Your task to perform on an android device: Clear the cart on amazon.com. Image 0: 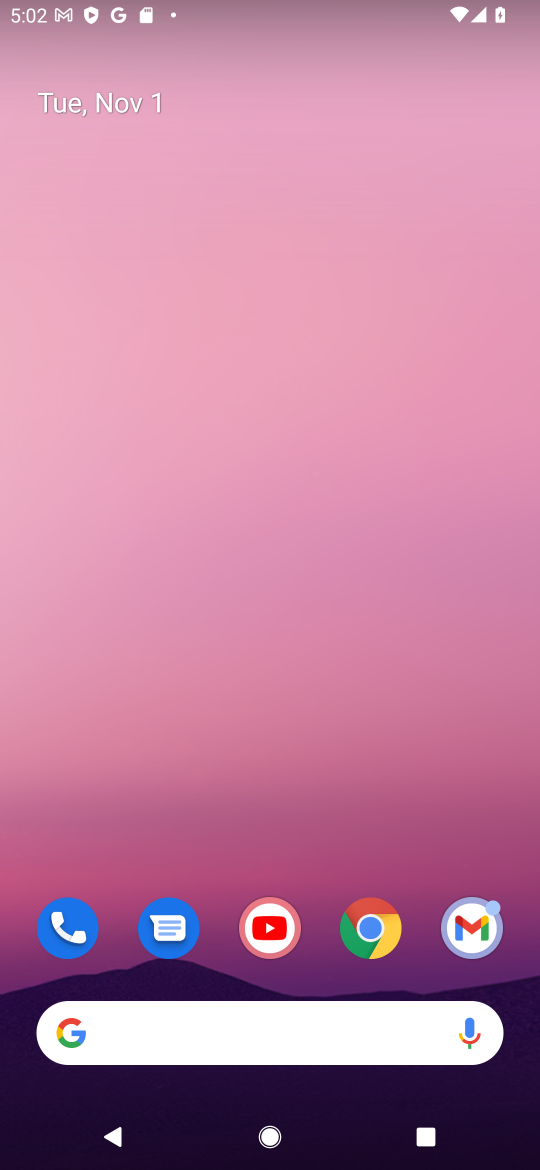
Step 0: click (367, 944)
Your task to perform on an android device: Clear the cart on amazon.com. Image 1: 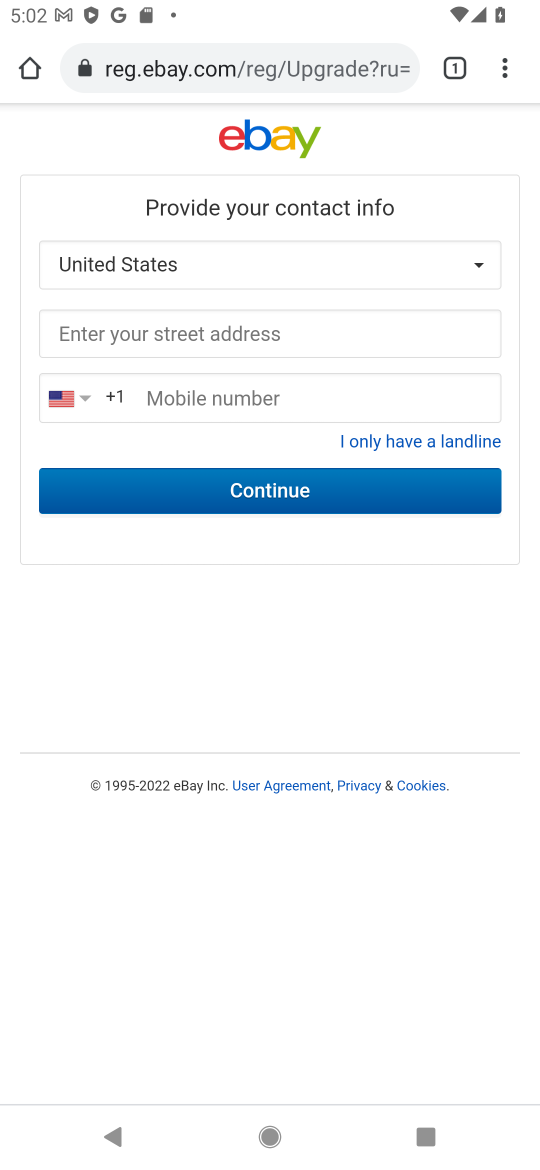
Step 1: click (286, 72)
Your task to perform on an android device: Clear the cart on amazon.com. Image 2: 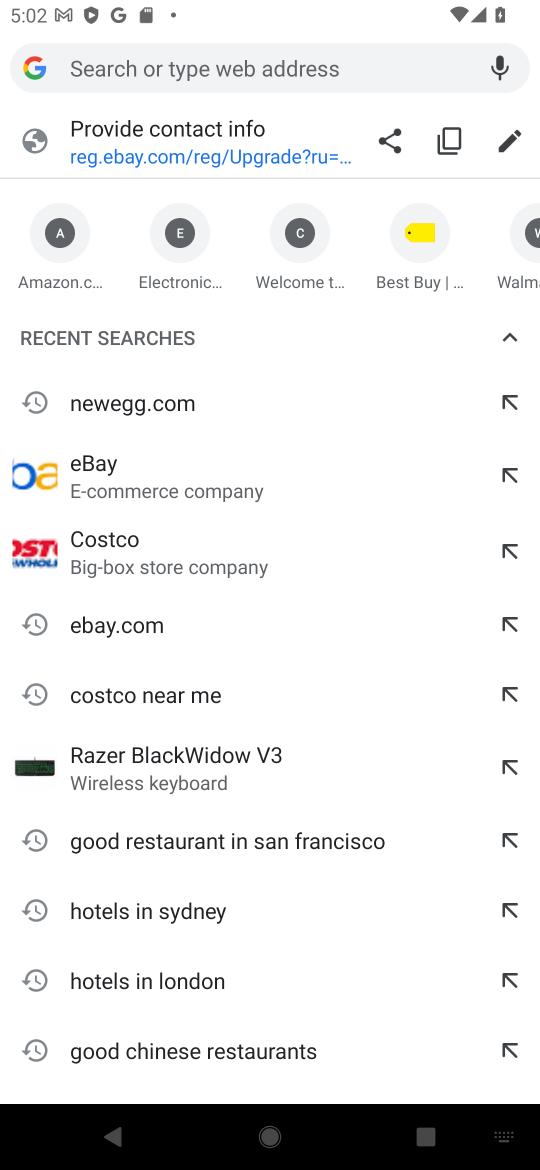
Step 2: type "amazon.com"
Your task to perform on an android device: Clear the cart on amazon.com. Image 3: 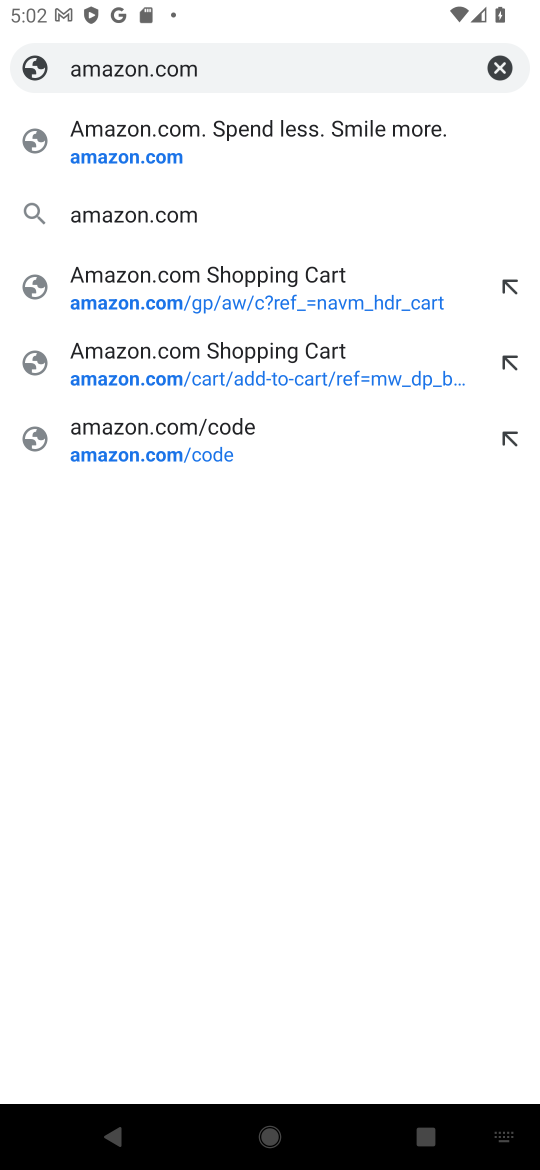
Step 3: press enter
Your task to perform on an android device: Clear the cart on amazon.com. Image 4: 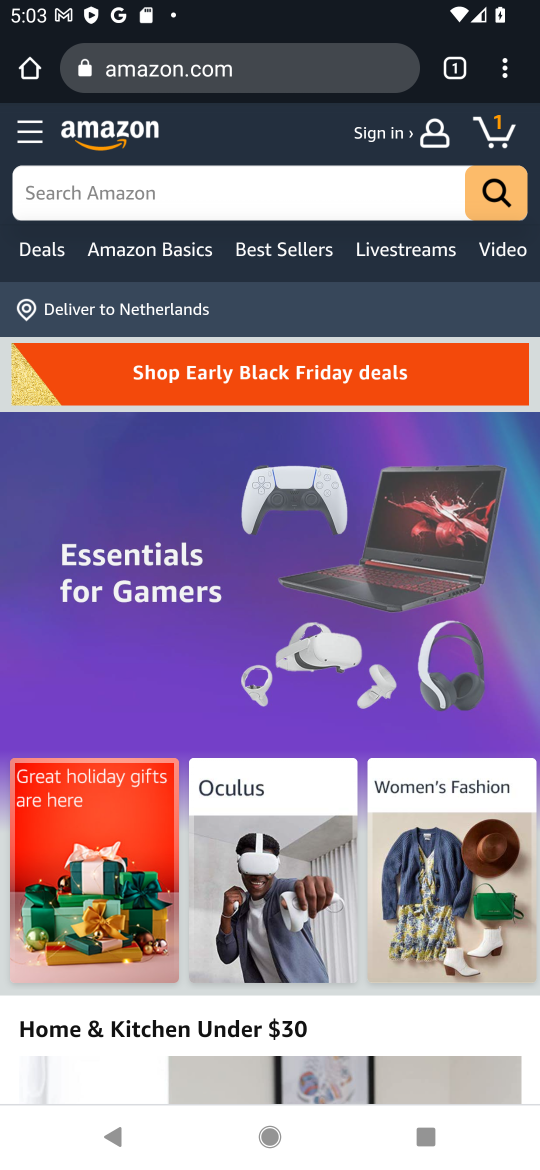
Step 4: click (504, 122)
Your task to perform on an android device: Clear the cart on amazon.com. Image 5: 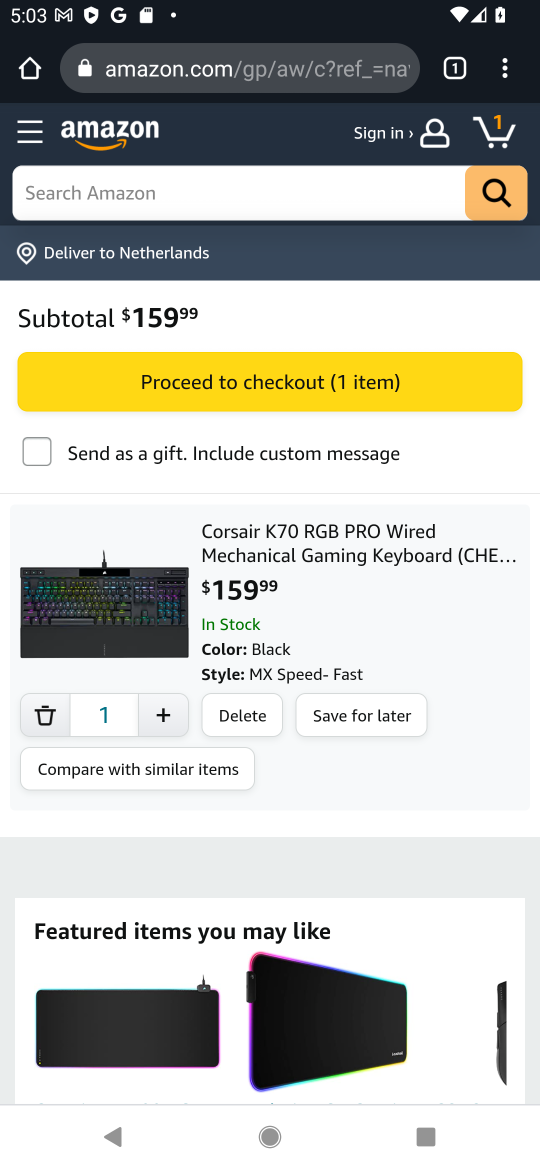
Step 5: click (52, 719)
Your task to perform on an android device: Clear the cart on amazon.com. Image 6: 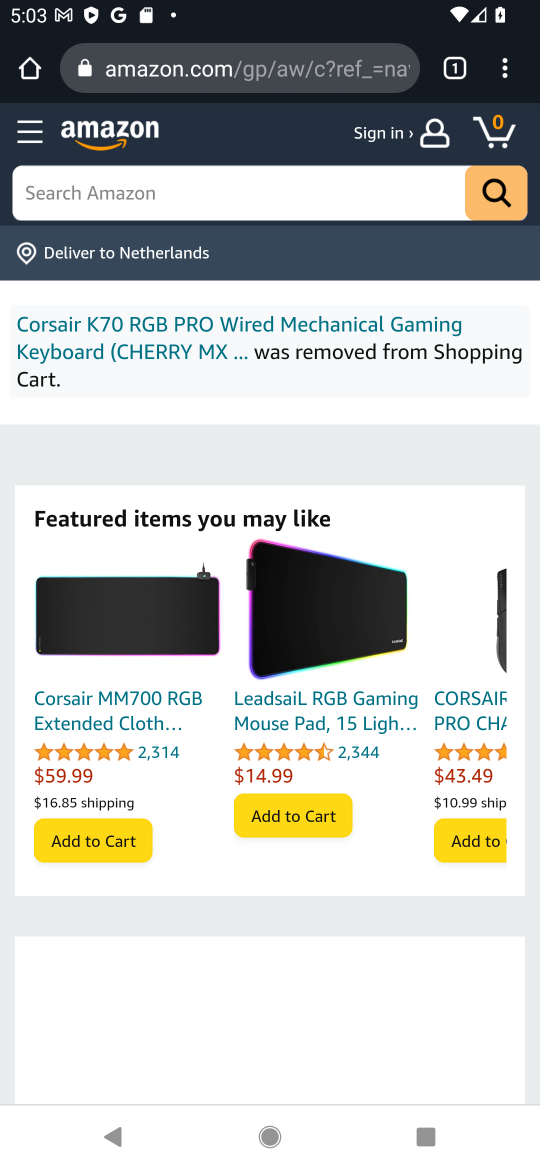
Step 6: task complete